Your task to perform on an android device: What's the weather? Image 0: 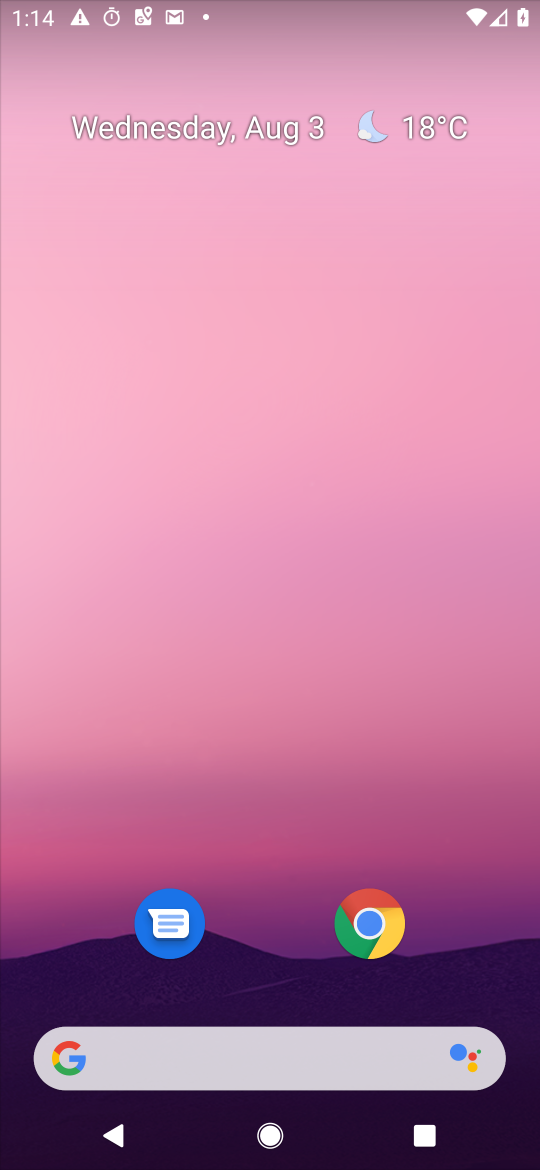
Step 0: drag from (254, 944) to (317, 115)
Your task to perform on an android device: What's the weather? Image 1: 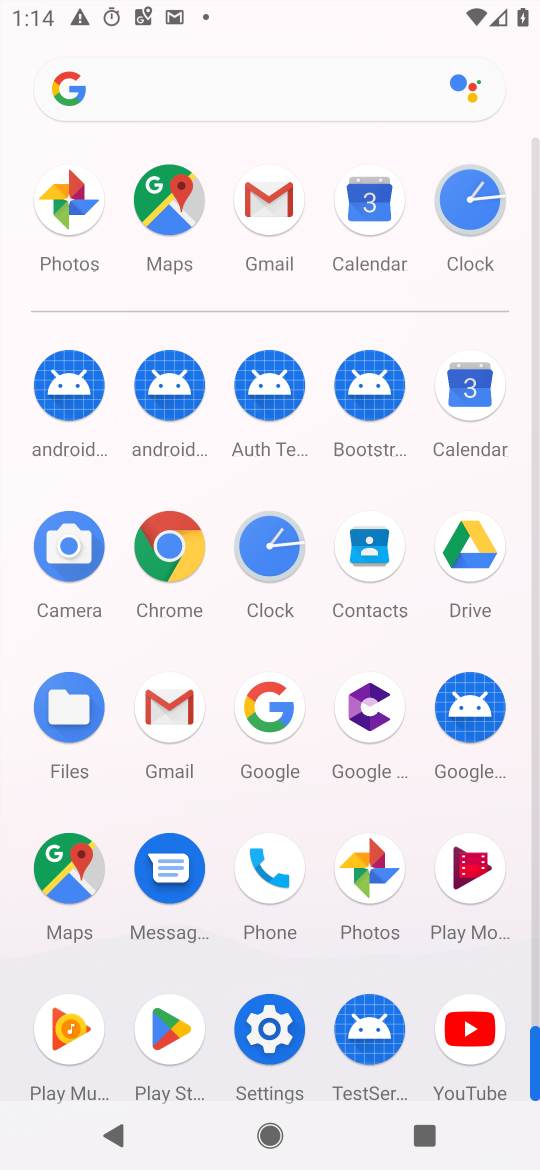
Step 1: drag from (261, 957) to (238, 634)
Your task to perform on an android device: What's the weather? Image 2: 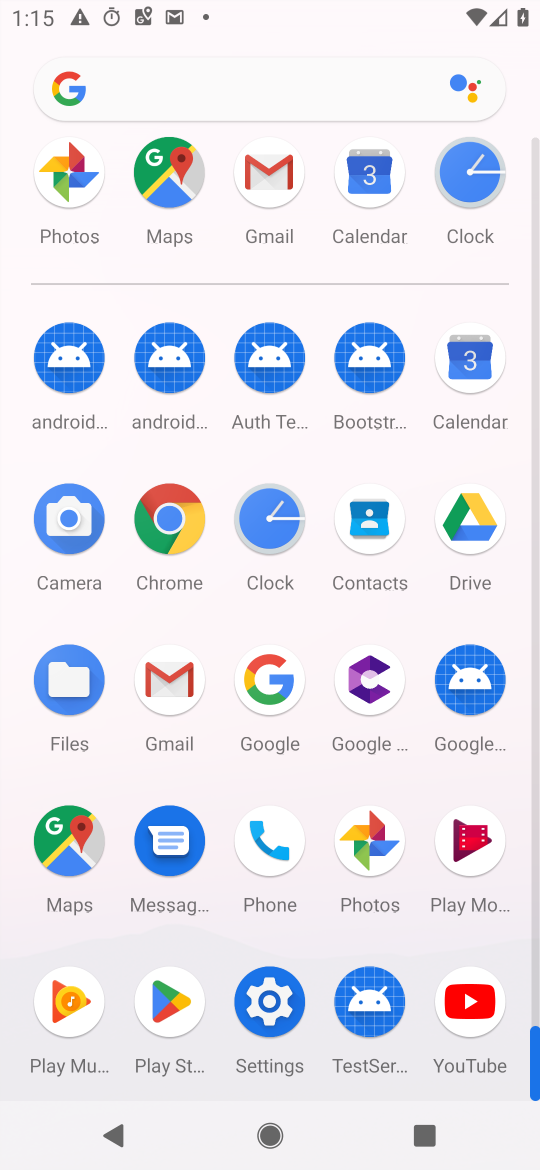
Step 2: click (224, 81)
Your task to perform on an android device: What's the weather? Image 3: 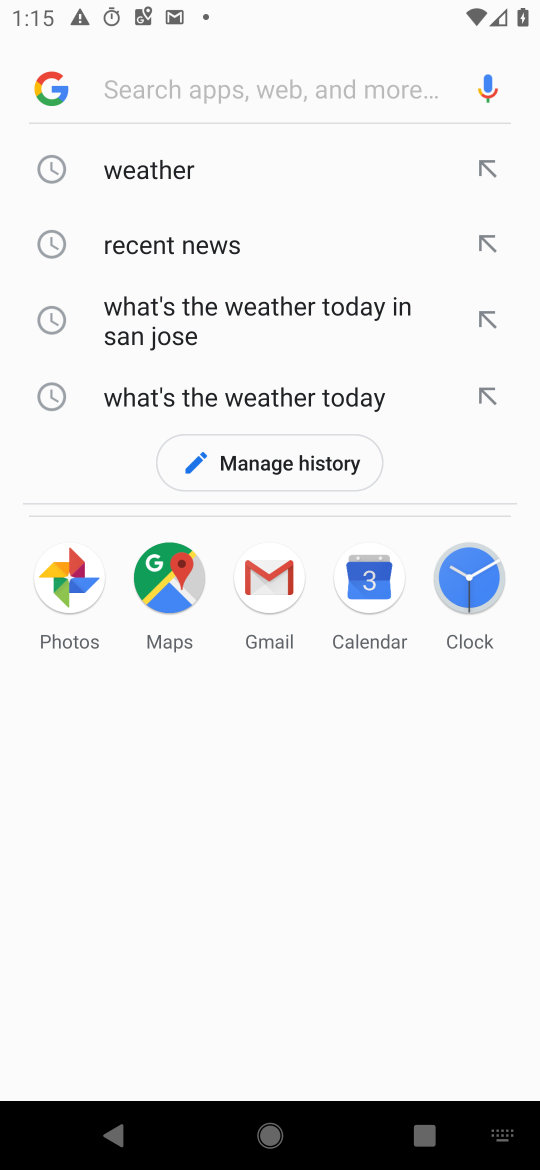
Step 3: click (150, 177)
Your task to perform on an android device: What's the weather? Image 4: 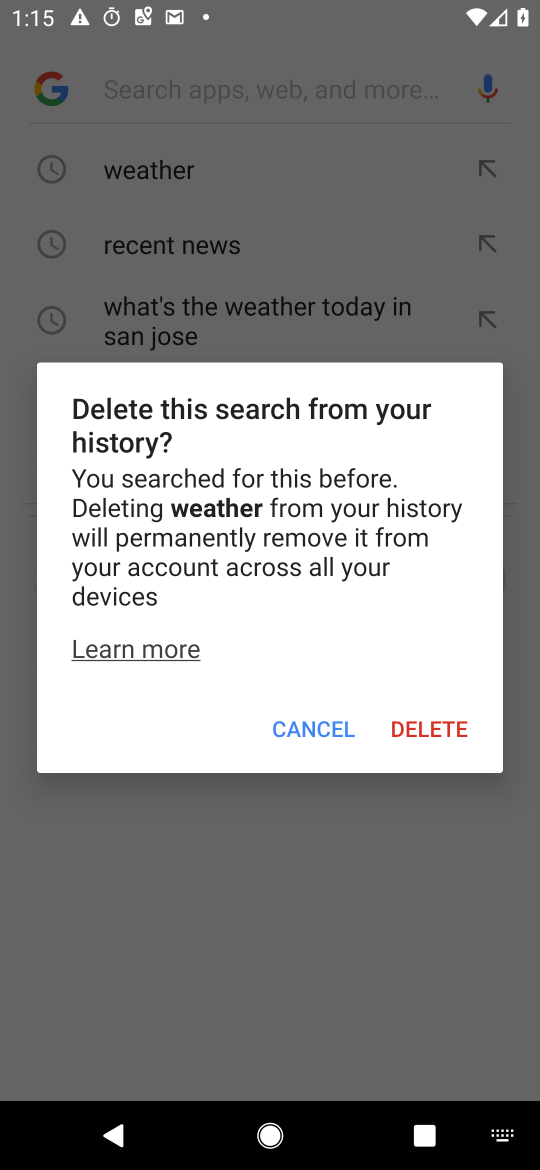
Step 4: click (289, 729)
Your task to perform on an android device: What's the weather? Image 5: 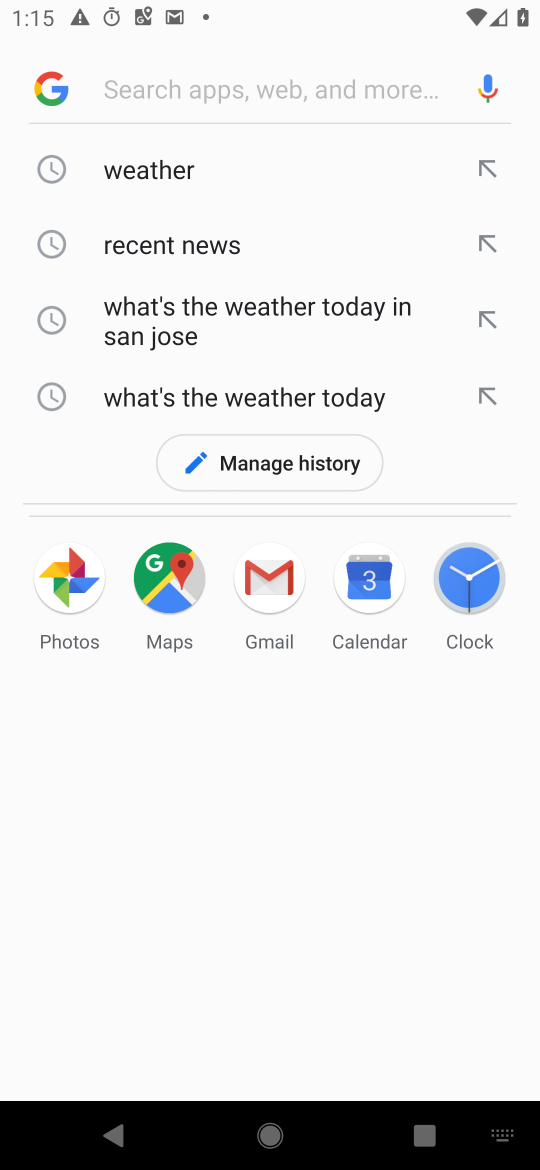
Step 5: click (84, 157)
Your task to perform on an android device: What's the weather? Image 6: 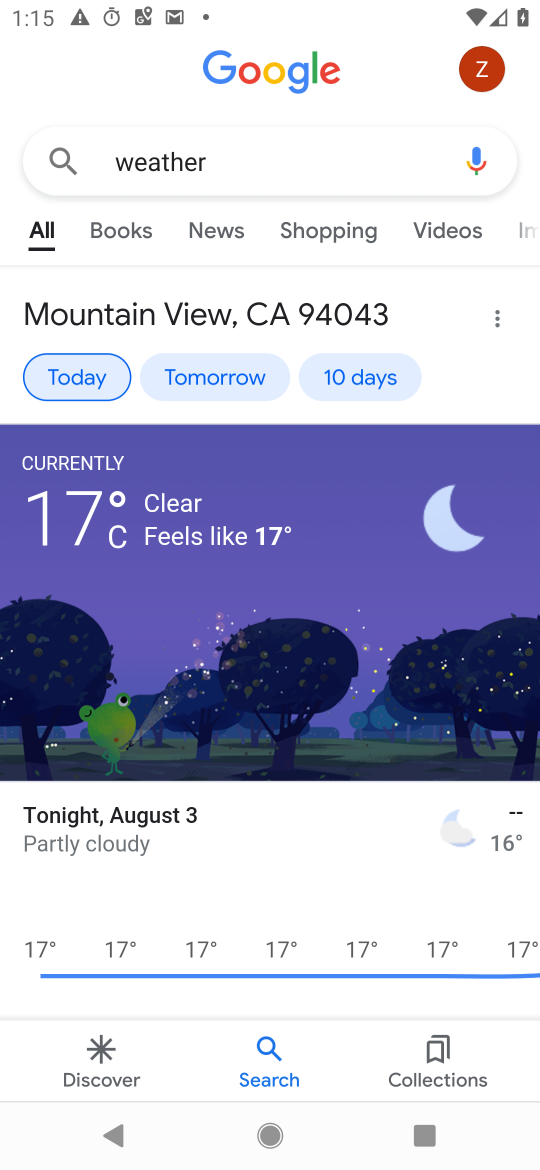
Step 6: drag from (335, 789) to (318, 636)
Your task to perform on an android device: What's the weather? Image 7: 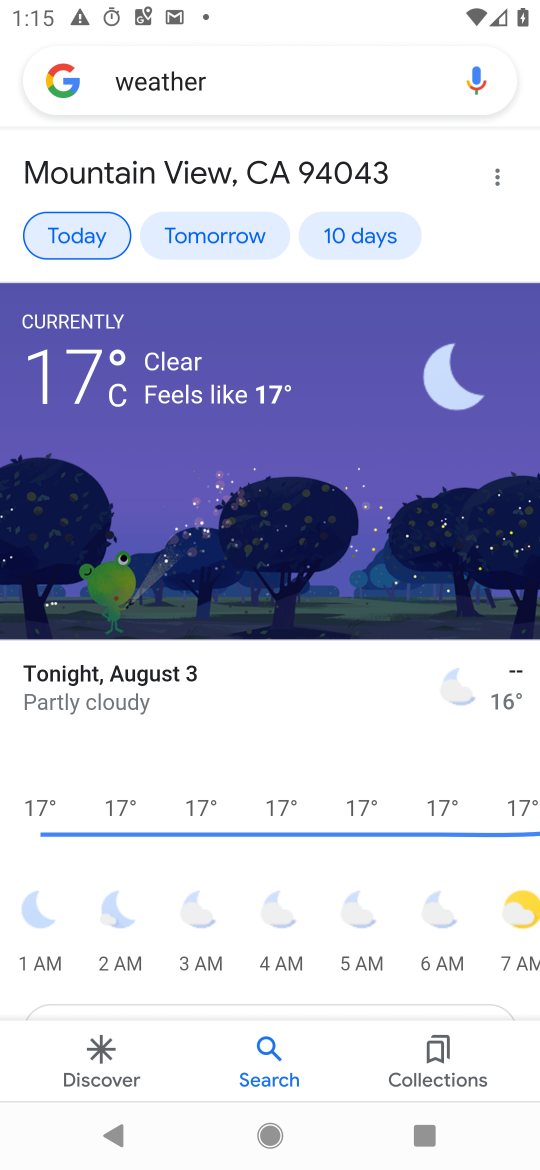
Step 7: drag from (348, 536) to (512, 1125)
Your task to perform on an android device: What's the weather? Image 8: 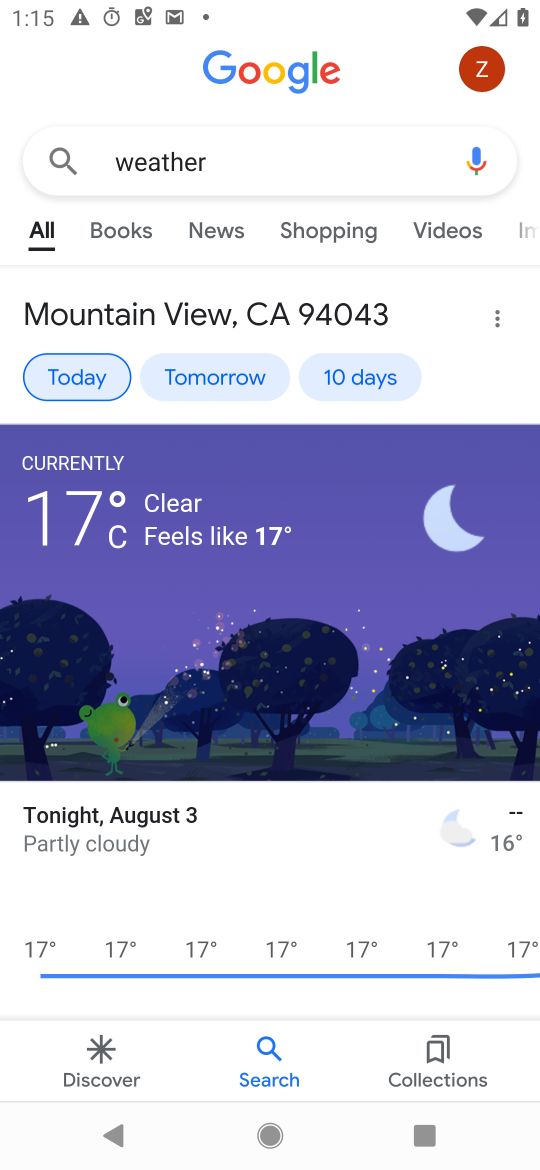
Step 8: drag from (367, 489) to (361, 1143)
Your task to perform on an android device: What's the weather? Image 9: 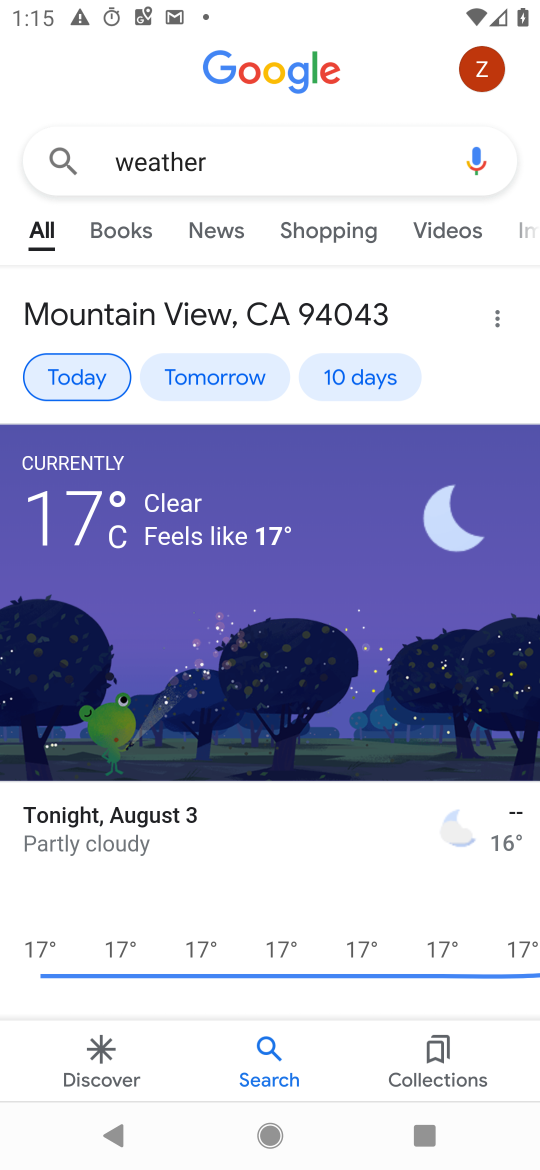
Step 9: drag from (320, 849) to (132, 9)
Your task to perform on an android device: What's the weather? Image 10: 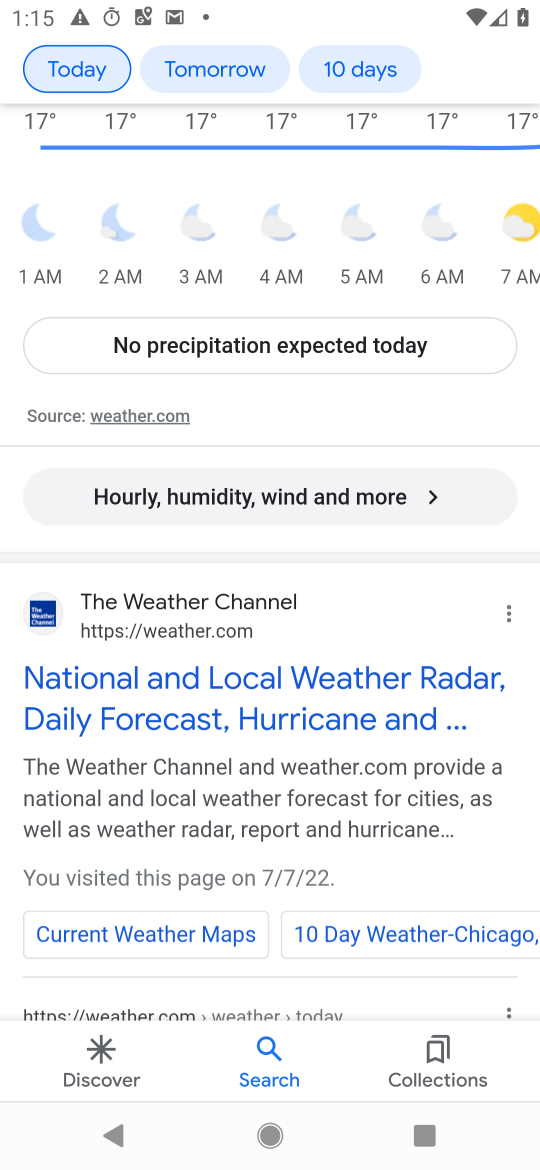
Step 10: drag from (247, 779) to (158, 1128)
Your task to perform on an android device: What's the weather? Image 11: 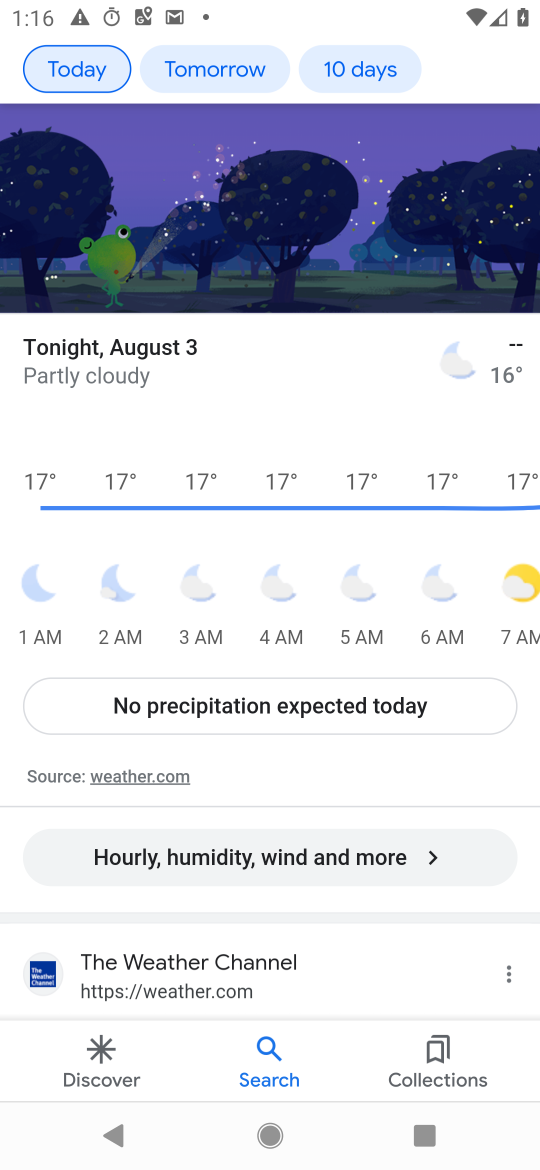
Step 11: drag from (297, 475) to (329, 1123)
Your task to perform on an android device: What's the weather? Image 12: 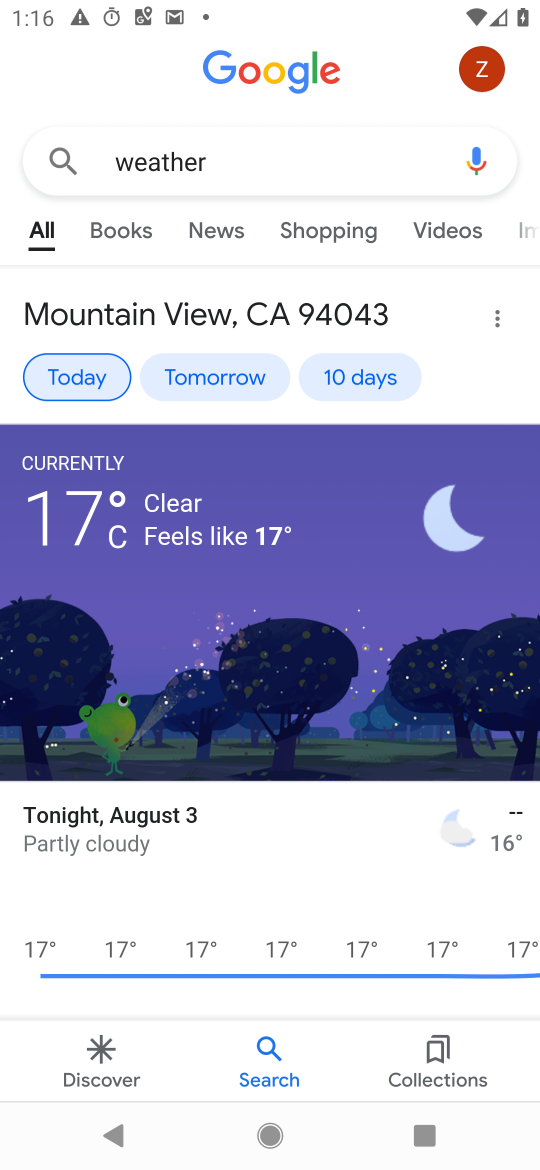
Step 12: drag from (290, 591) to (336, 865)
Your task to perform on an android device: What's the weather? Image 13: 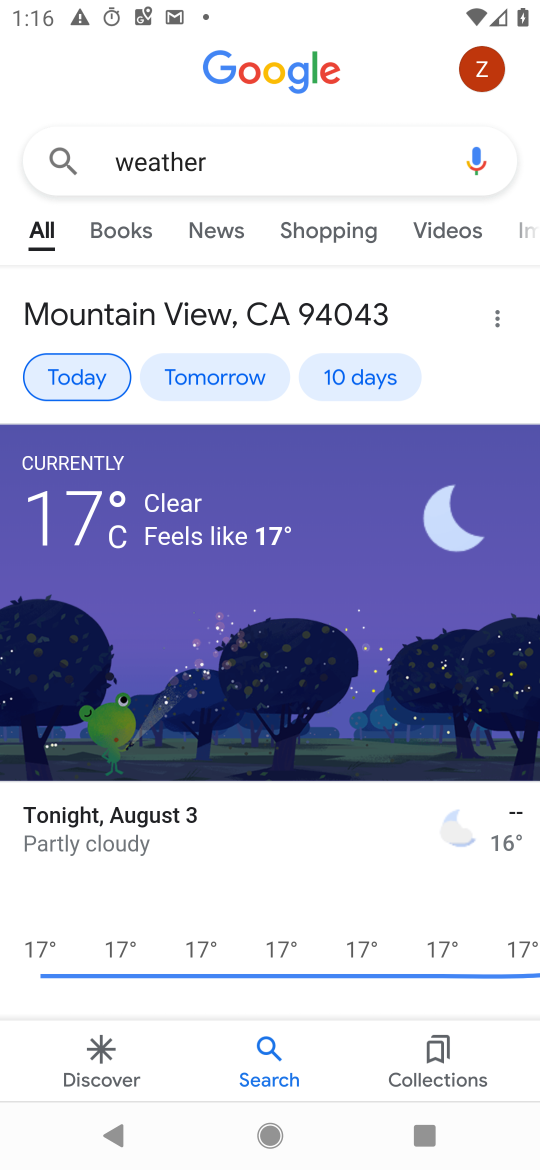
Step 13: click (514, 1130)
Your task to perform on an android device: What's the weather? Image 14: 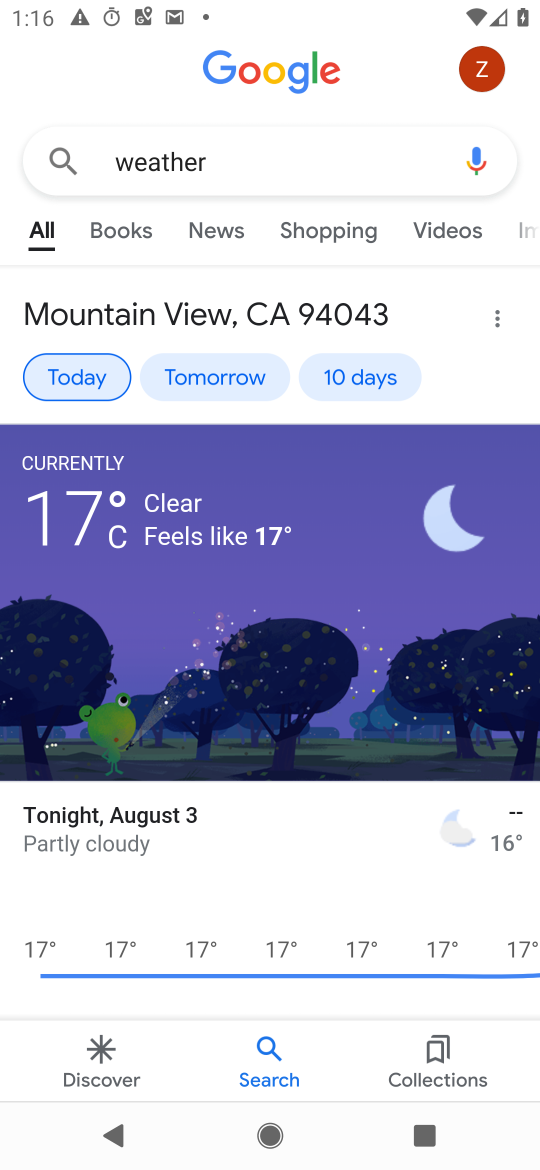
Step 14: task complete